Your task to perform on an android device: turn on the 12-hour format for clock Image 0: 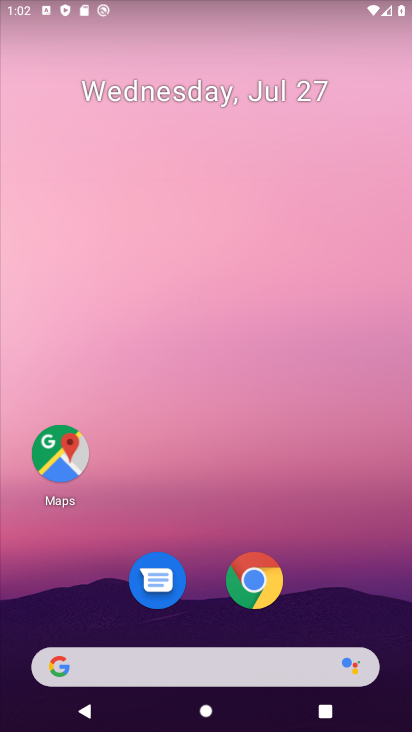
Step 0: drag from (280, 461) to (337, 115)
Your task to perform on an android device: turn on the 12-hour format for clock Image 1: 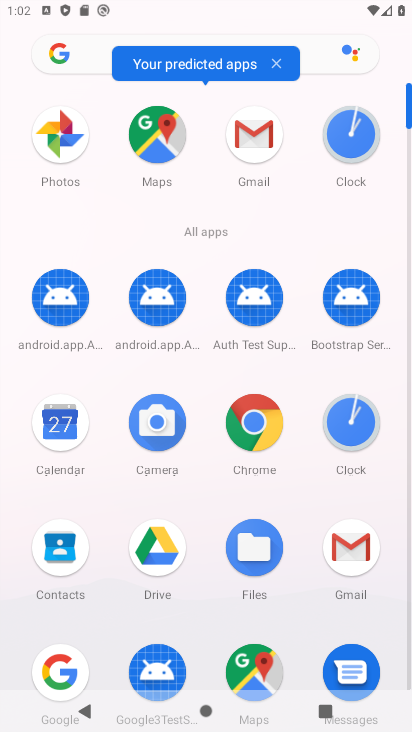
Step 1: click (345, 431)
Your task to perform on an android device: turn on the 12-hour format for clock Image 2: 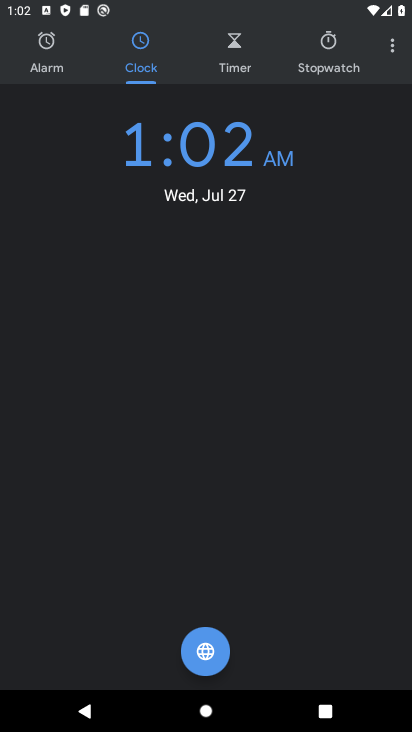
Step 2: click (386, 46)
Your task to perform on an android device: turn on the 12-hour format for clock Image 3: 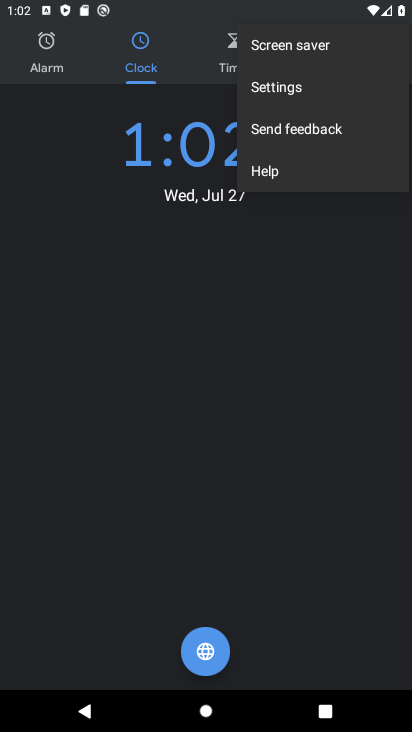
Step 3: click (305, 93)
Your task to perform on an android device: turn on the 12-hour format for clock Image 4: 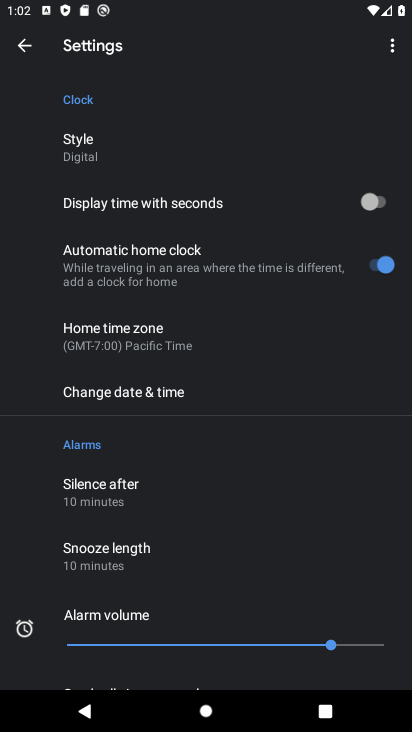
Step 4: click (116, 393)
Your task to perform on an android device: turn on the 12-hour format for clock Image 5: 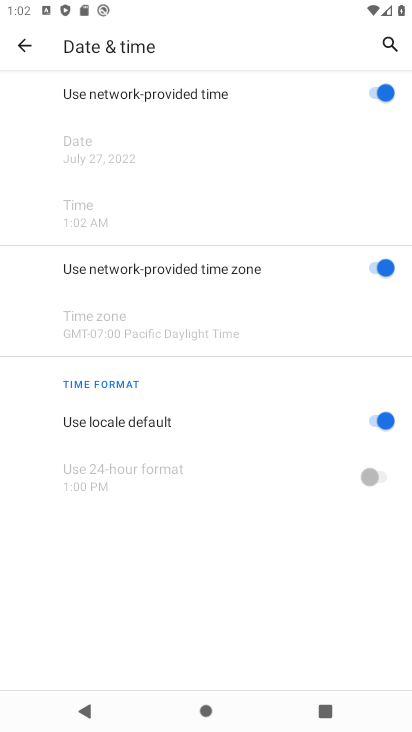
Step 5: click (361, 426)
Your task to perform on an android device: turn on the 12-hour format for clock Image 6: 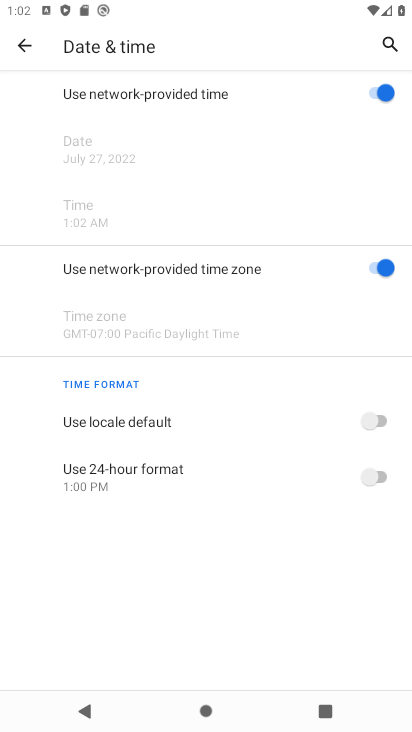
Step 6: task complete